Your task to perform on an android device: turn off improve location accuracy Image 0: 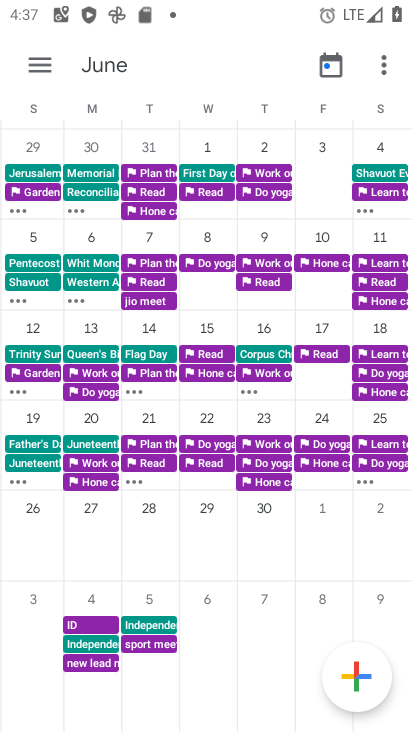
Step 0: press home button
Your task to perform on an android device: turn off improve location accuracy Image 1: 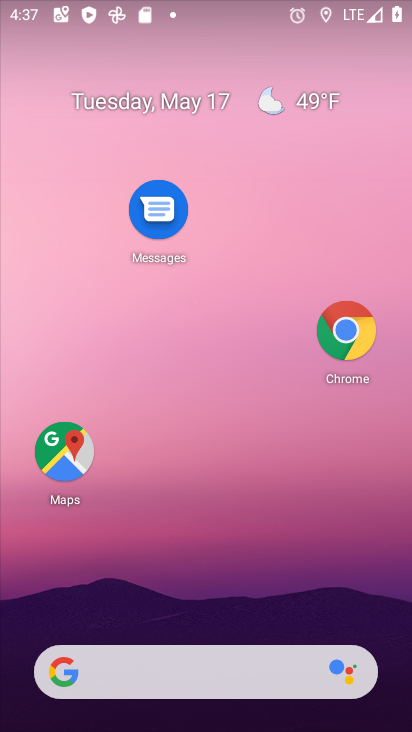
Step 1: drag from (341, 545) to (48, 0)
Your task to perform on an android device: turn off improve location accuracy Image 2: 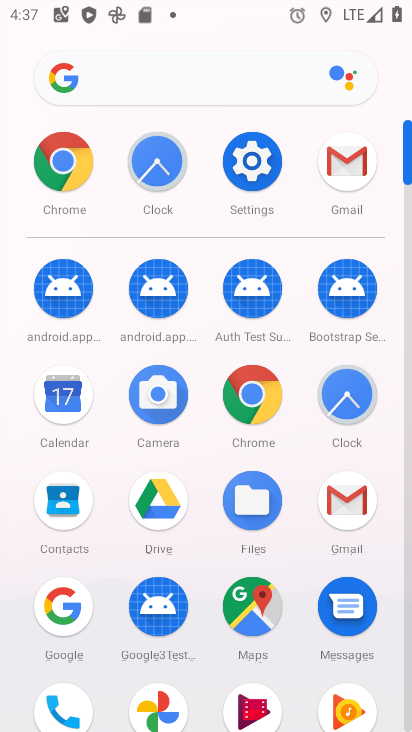
Step 2: click (270, 178)
Your task to perform on an android device: turn off improve location accuracy Image 3: 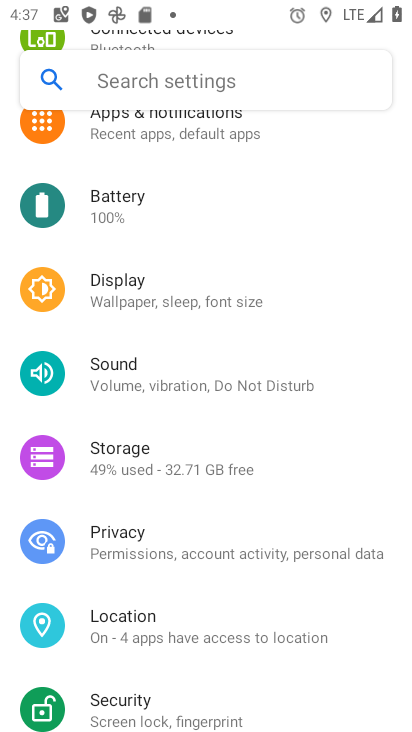
Step 3: click (210, 580)
Your task to perform on an android device: turn off improve location accuracy Image 4: 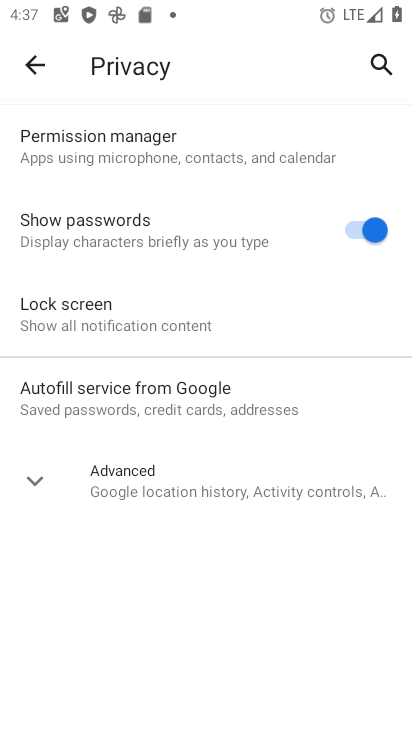
Step 4: click (28, 78)
Your task to perform on an android device: turn off improve location accuracy Image 5: 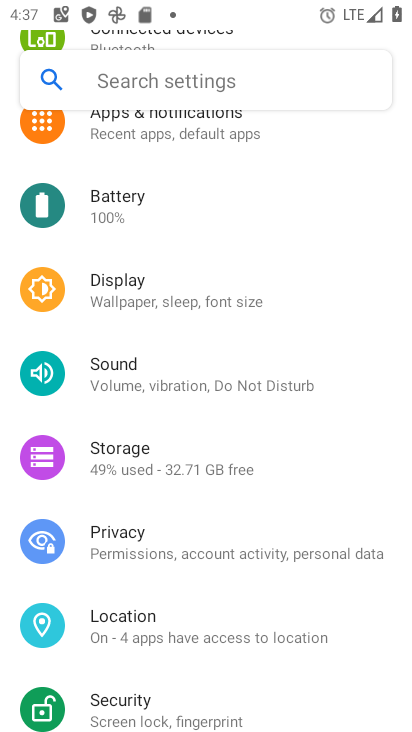
Step 5: click (190, 639)
Your task to perform on an android device: turn off improve location accuracy Image 6: 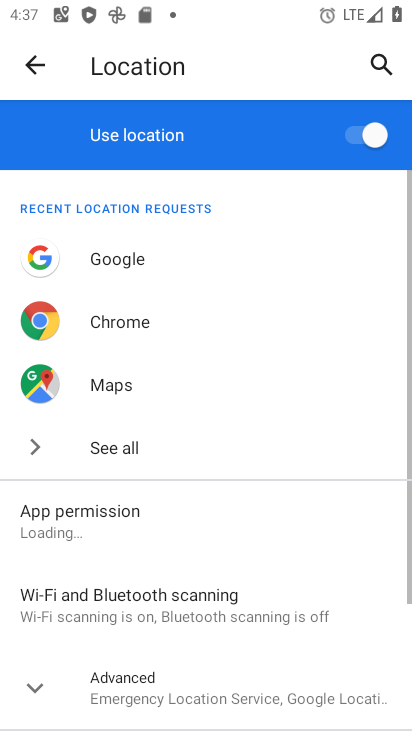
Step 6: drag from (190, 639) to (163, 330)
Your task to perform on an android device: turn off improve location accuracy Image 7: 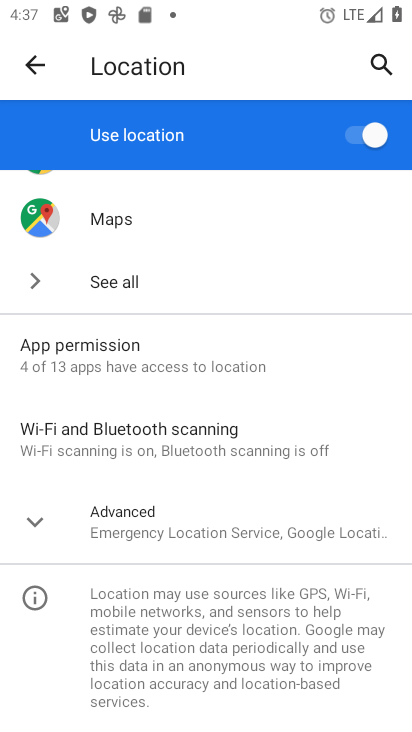
Step 7: click (172, 497)
Your task to perform on an android device: turn off improve location accuracy Image 8: 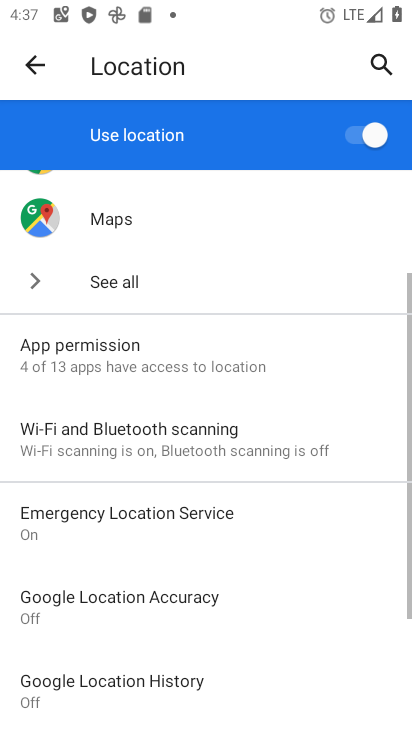
Step 8: task complete